Your task to perform on an android device: turn on wifi Image 0: 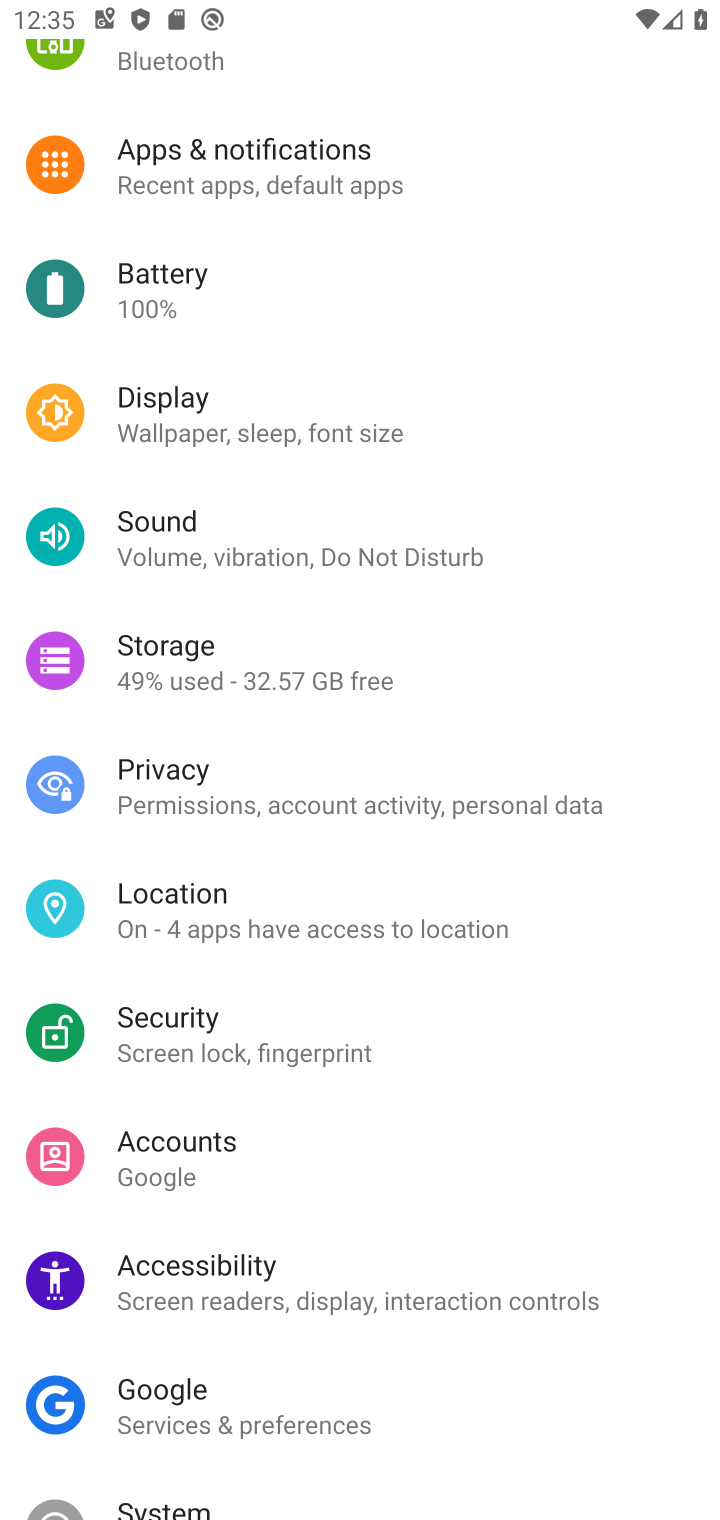
Step 0: press back button
Your task to perform on an android device: turn on wifi Image 1: 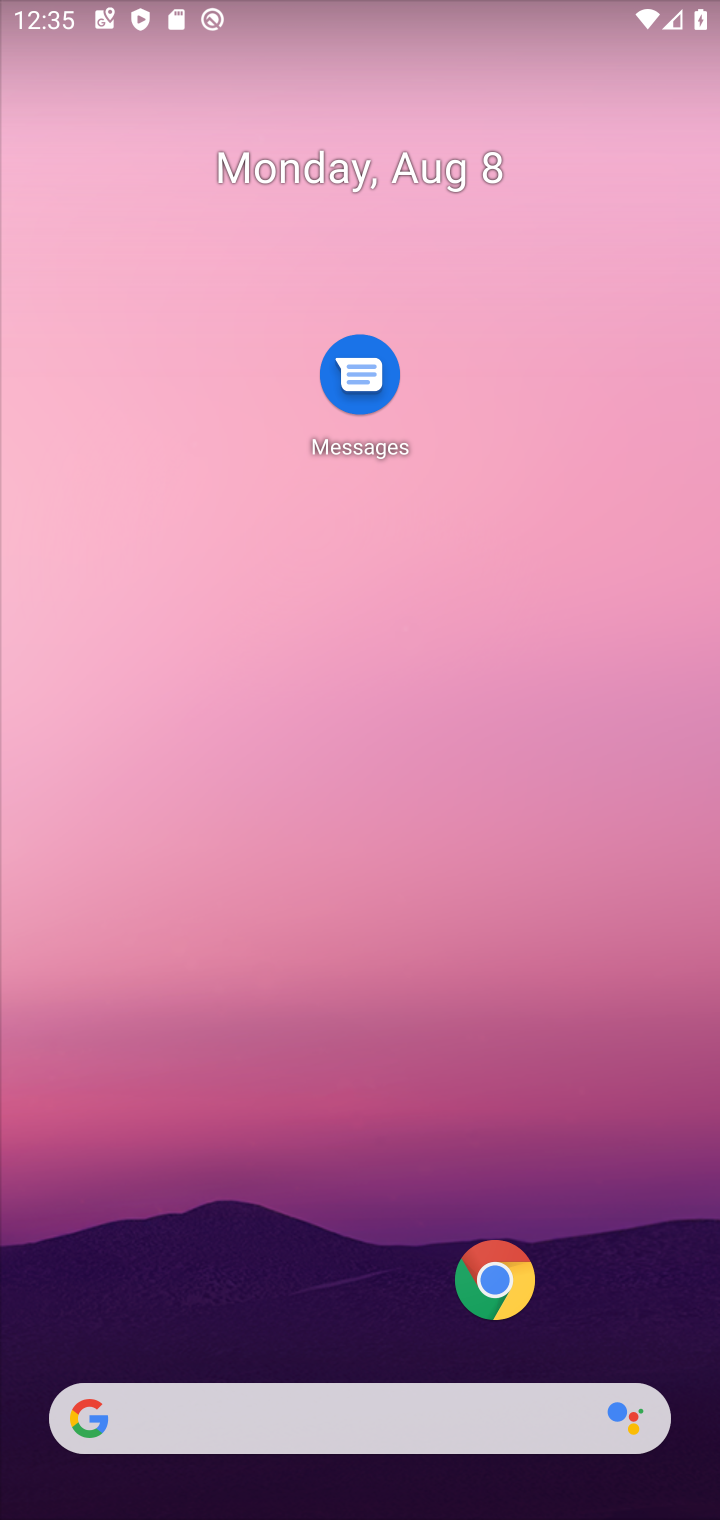
Step 1: task complete